Your task to perform on an android device: turn smart compose on in the gmail app Image 0: 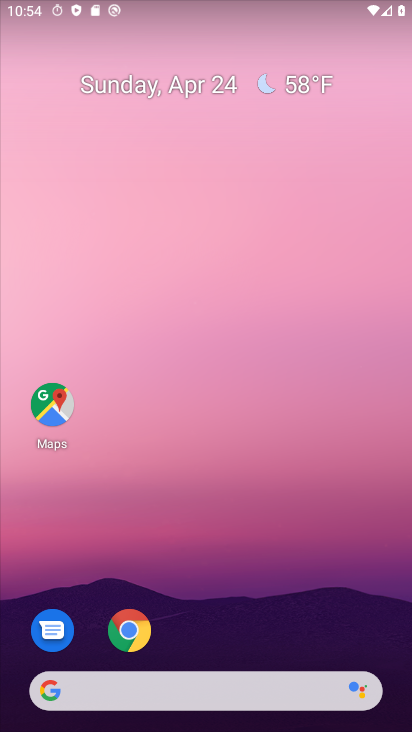
Step 0: drag from (268, 637) to (273, 291)
Your task to perform on an android device: turn smart compose on in the gmail app Image 1: 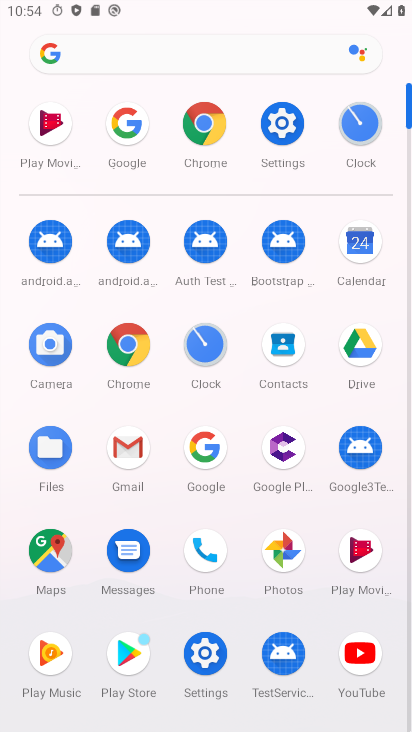
Step 1: click (135, 449)
Your task to perform on an android device: turn smart compose on in the gmail app Image 2: 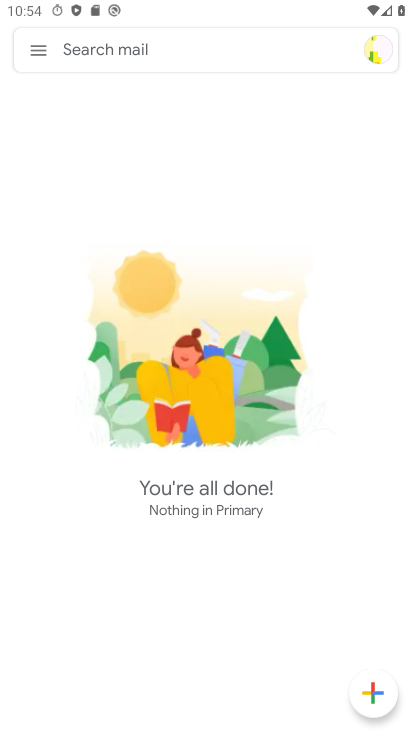
Step 2: click (41, 52)
Your task to perform on an android device: turn smart compose on in the gmail app Image 3: 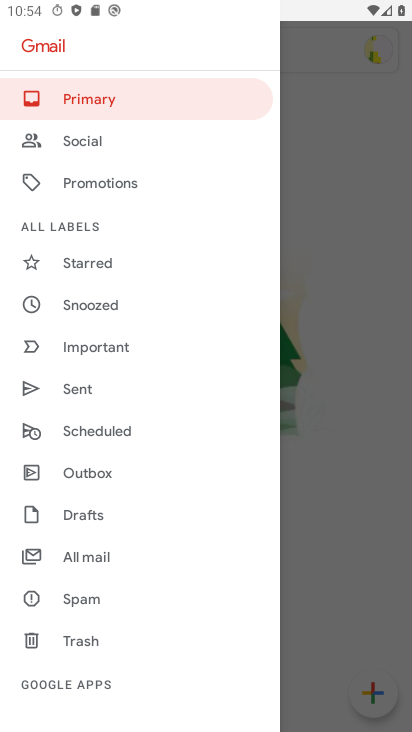
Step 3: drag from (88, 524) to (141, 163)
Your task to perform on an android device: turn smart compose on in the gmail app Image 4: 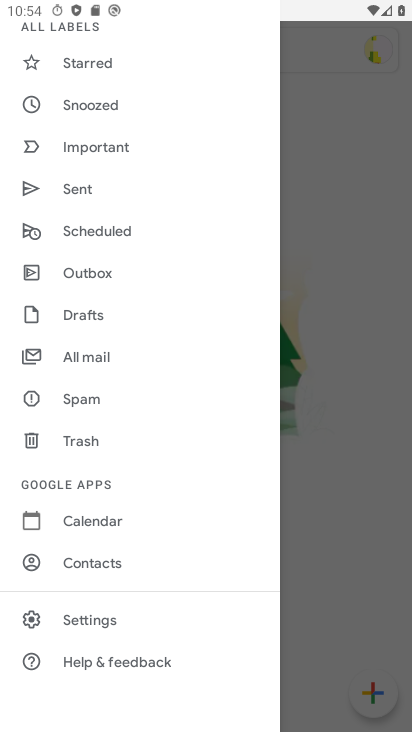
Step 4: click (101, 618)
Your task to perform on an android device: turn smart compose on in the gmail app Image 5: 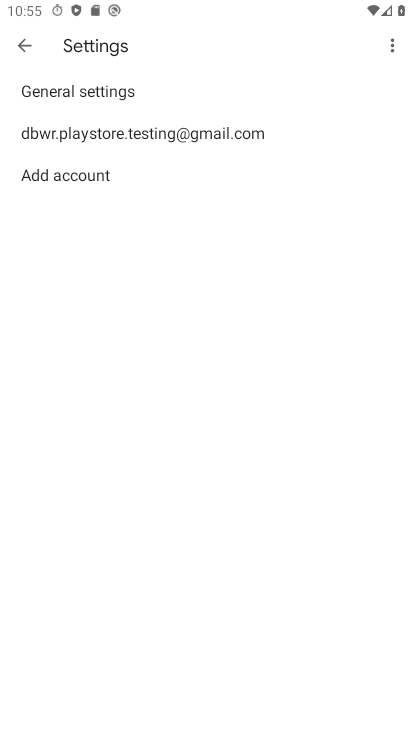
Step 5: click (156, 141)
Your task to perform on an android device: turn smart compose on in the gmail app Image 6: 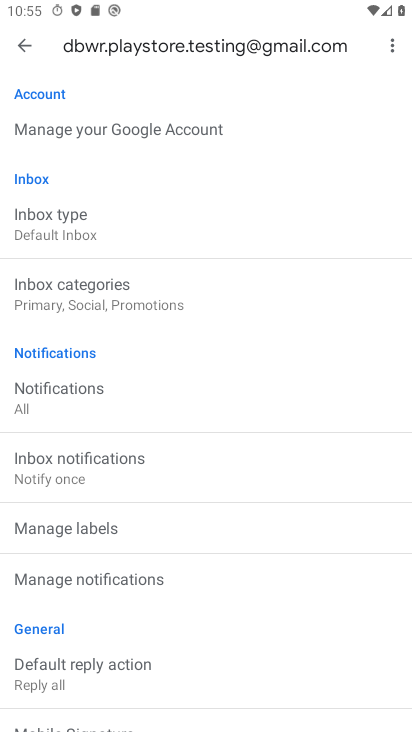
Step 6: task complete